Your task to perform on an android device: toggle improve location accuracy Image 0: 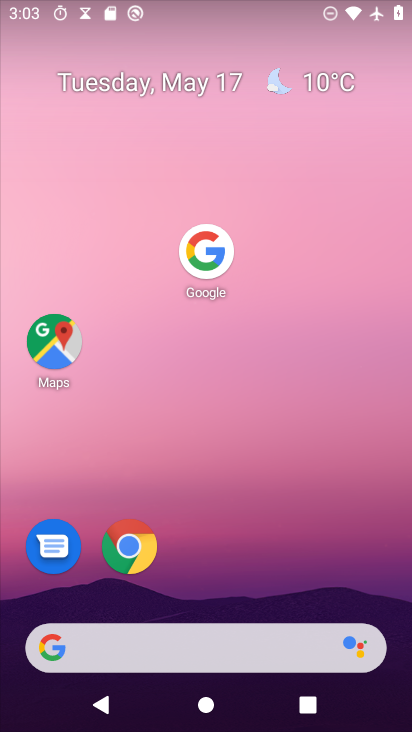
Step 0: press home button
Your task to perform on an android device: toggle improve location accuracy Image 1: 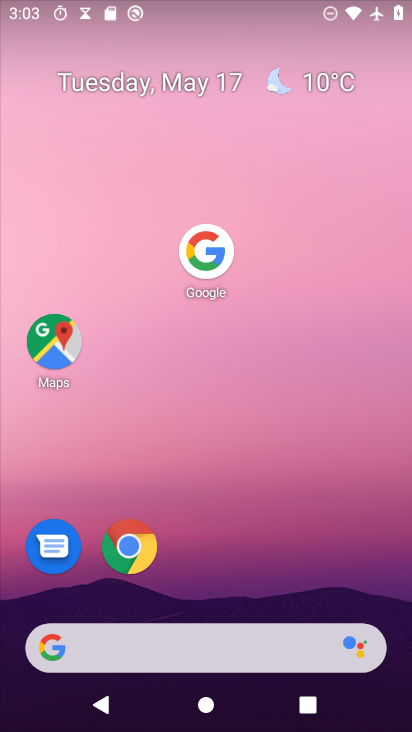
Step 1: drag from (167, 653) to (306, 180)
Your task to perform on an android device: toggle improve location accuracy Image 2: 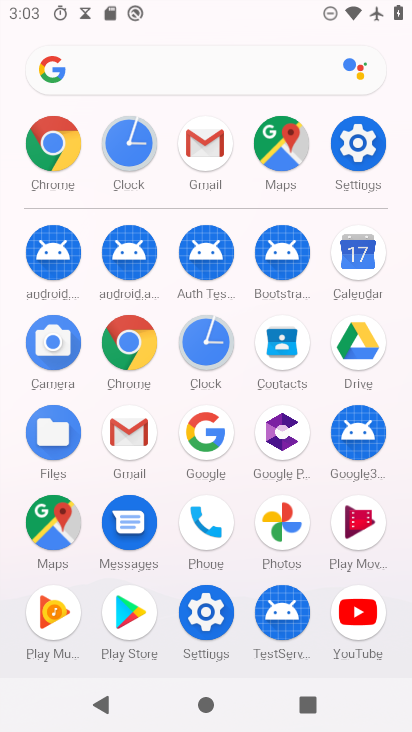
Step 2: click (358, 154)
Your task to perform on an android device: toggle improve location accuracy Image 3: 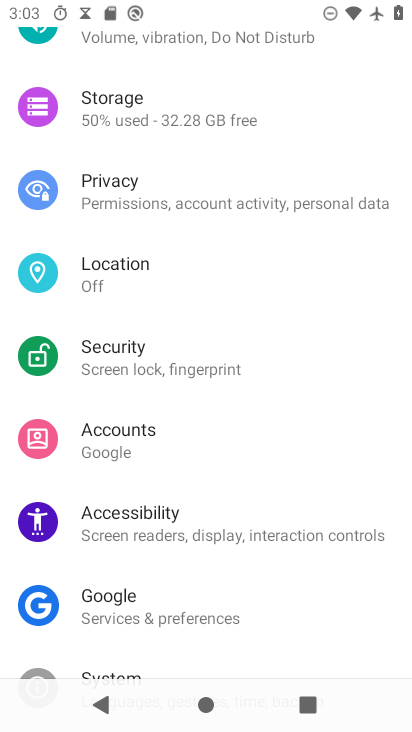
Step 3: drag from (219, 508) to (325, 245)
Your task to perform on an android device: toggle improve location accuracy Image 4: 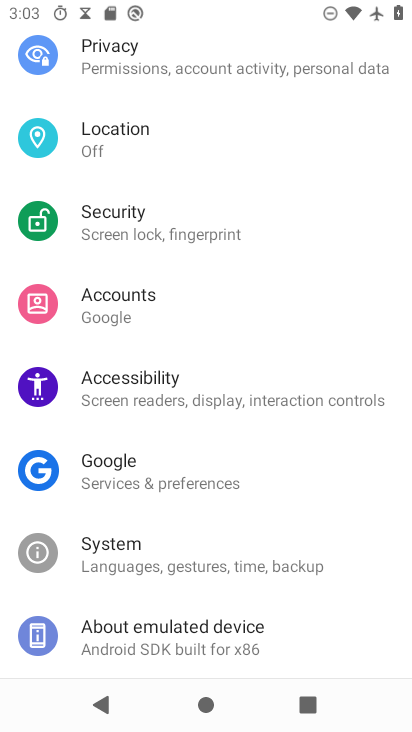
Step 4: drag from (303, 156) to (271, 443)
Your task to perform on an android device: toggle improve location accuracy Image 5: 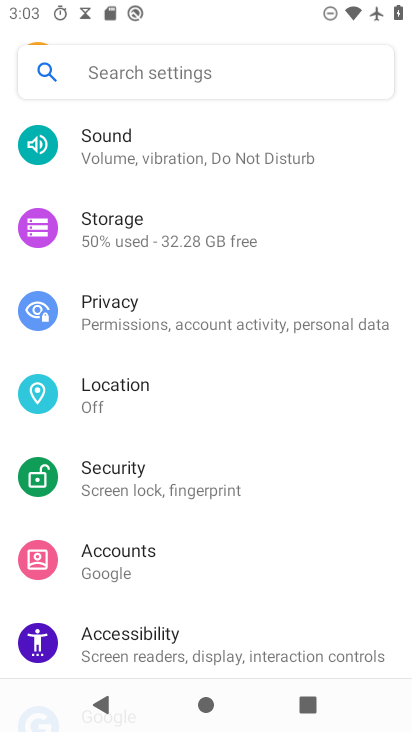
Step 5: click (123, 385)
Your task to perform on an android device: toggle improve location accuracy Image 6: 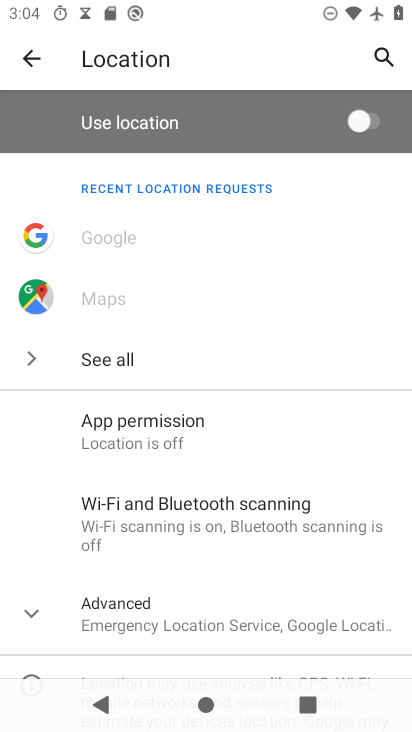
Step 6: click (165, 605)
Your task to perform on an android device: toggle improve location accuracy Image 7: 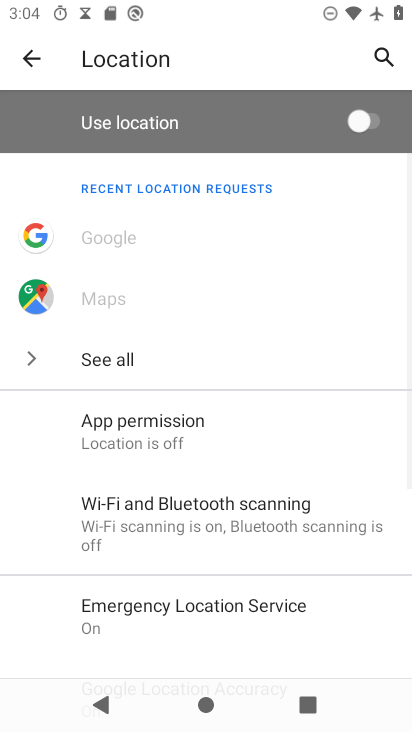
Step 7: drag from (224, 585) to (293, 204)
Your task to perform on an android device: toggle improve location accuracy Image 8: 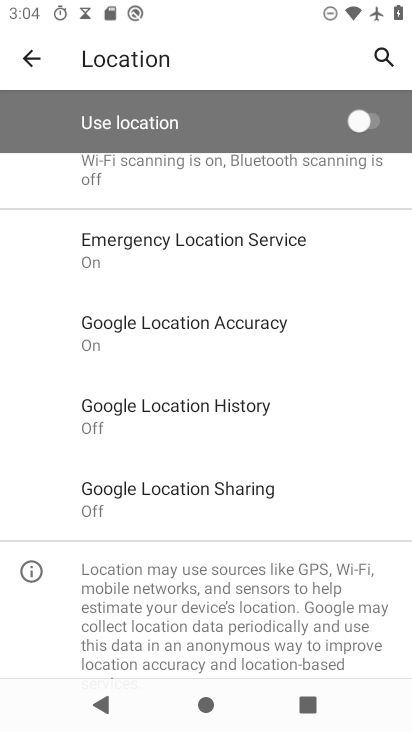
Step 8: click (193, 332)
Your task to perform on an android device: toggle improve location accuracy Image 9: 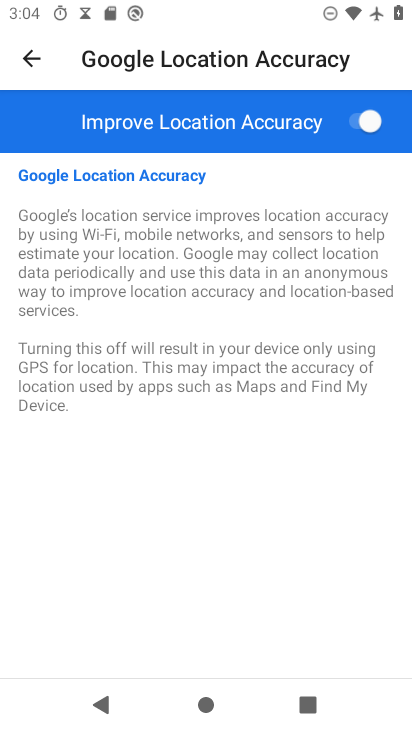
Step 9: click (358, 117)
Your task to perform on an android device: toggle improve location accuracy Image 10: 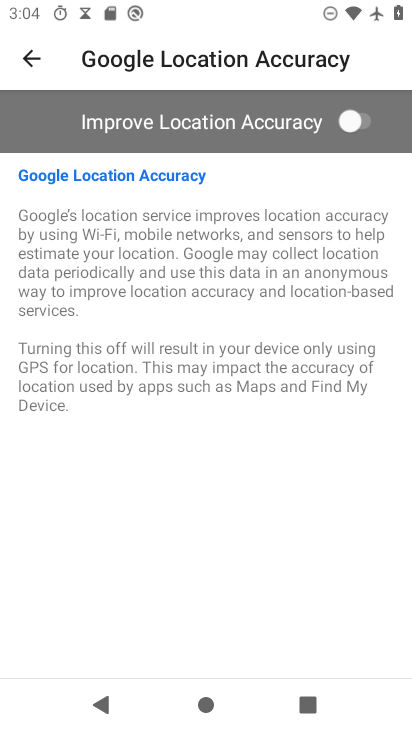
Step 10: task complete